Your task to perform on an android device: set default search engine in the chrome app Image 0: 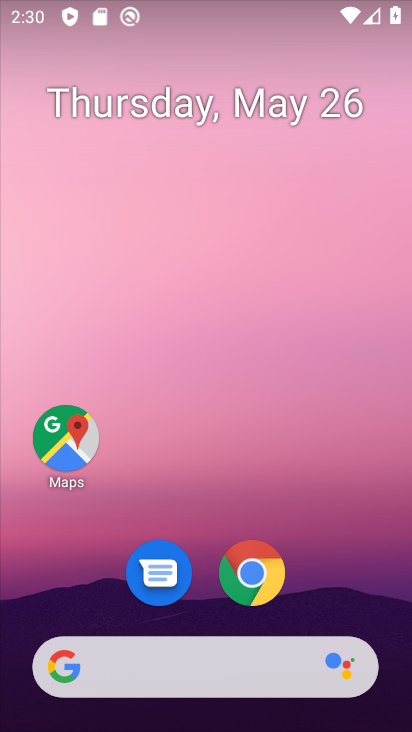
Step 0: click (252, 573)
Your task to perform on an android device: set default search engine in the chrome app Image 1: 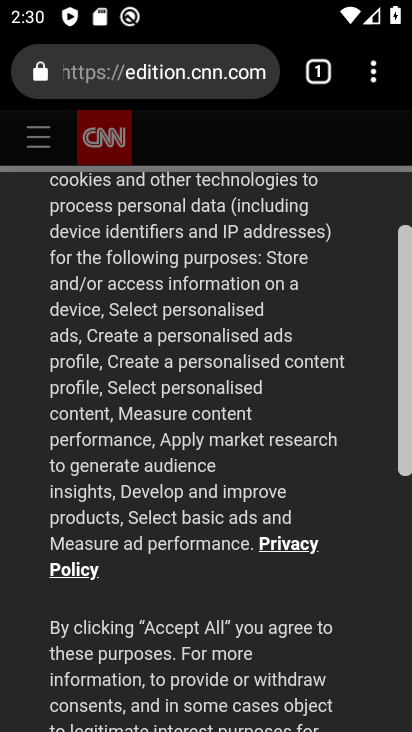
Step 1: click (374, 72)
Your task to perform on an android device: set default search engine in the chrome app Image 2: 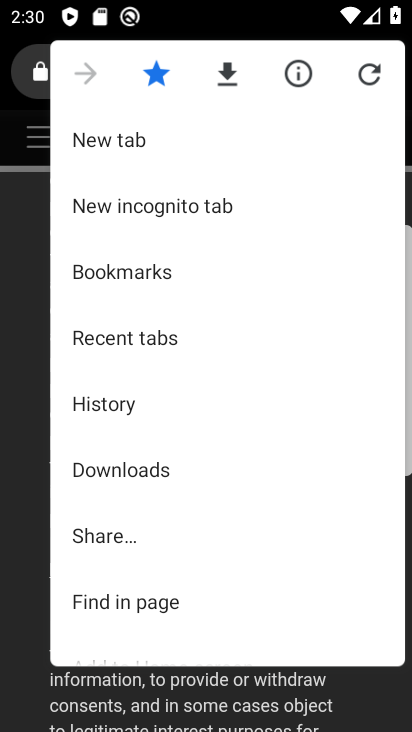
Step 2: drag from (168, 386) to (219, 300)
Your task to perform on an android device: set default search engine in the chrome app Image 3: 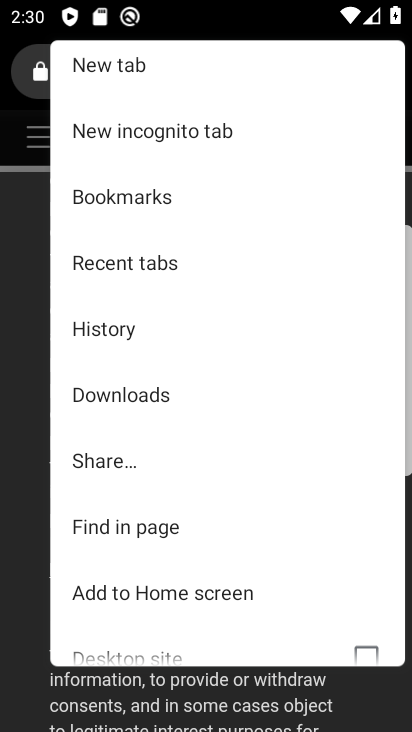
Step 3: drag from (146, 435) to (198, 350)
Your task to perform on an android device: set default search engine in the chrome app Image 4: 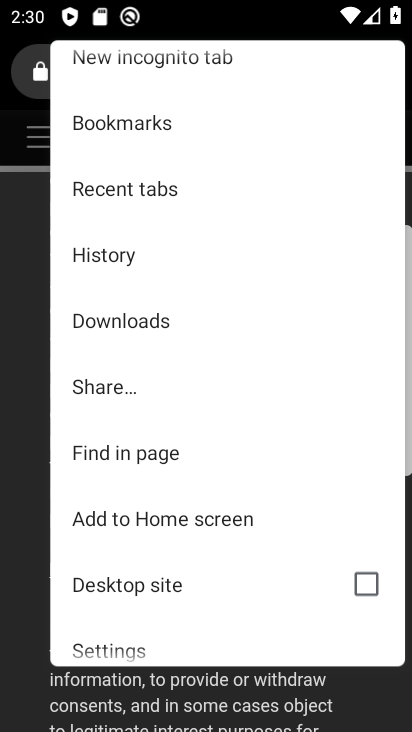
Step 4: drag from (138, 426) to (187, 333)
Your task to perform on an android device: set default search engine in the chrome app Image 5: 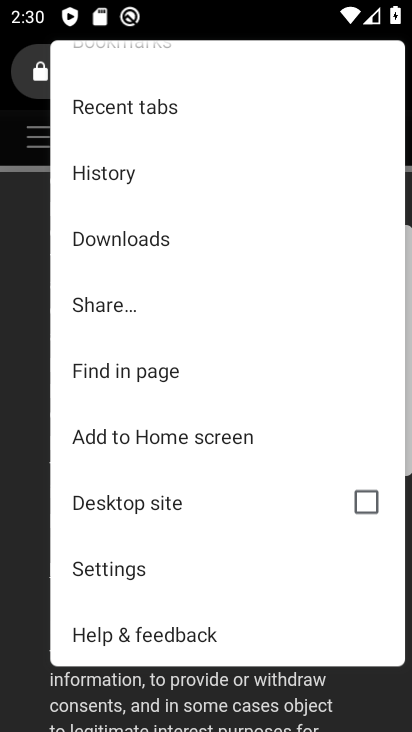
Step 5: click (131, 573)
Your task to perform on an android device: set default search engine in the chrome app Image 6: 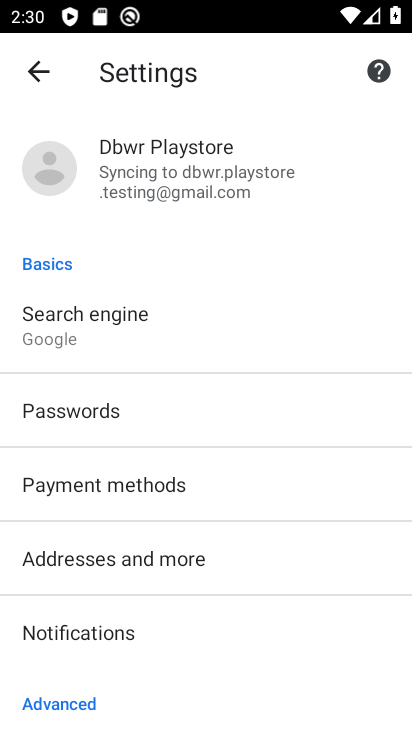
Step 6: click (121, 322)
Your task to perform on an android device: set default search engine in the chrome app Image 7: 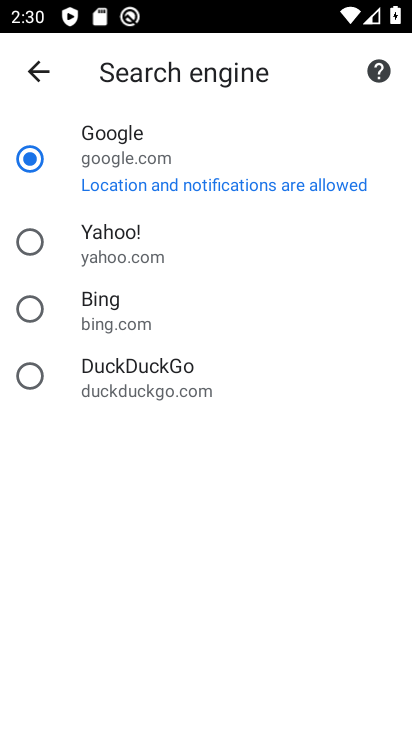
Step 7: click (28, 161)
Your task to perform on an android device: set default search engine in the chrome app Image 8: 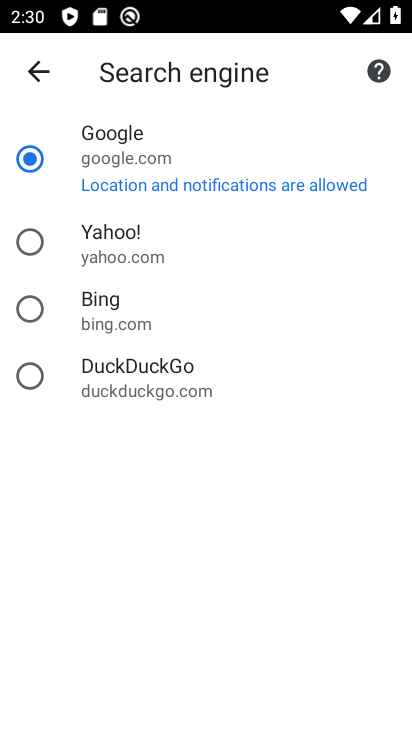
Step 8: task complete